Your task to perform on an android device: What is the news today? Image 0: 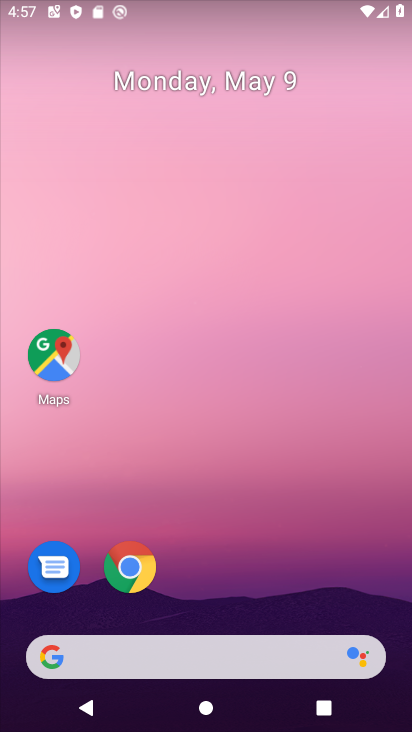
Step 0: drag from (258, 498) to (233, 121)
Your task to perform on an android device: What is the news today? Image 1: 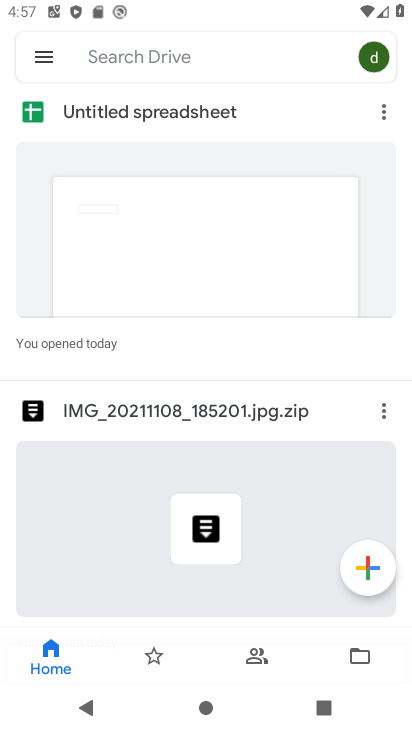
Step 1: press home button
Your task to perform on an android device: What is the news today? Image 2: 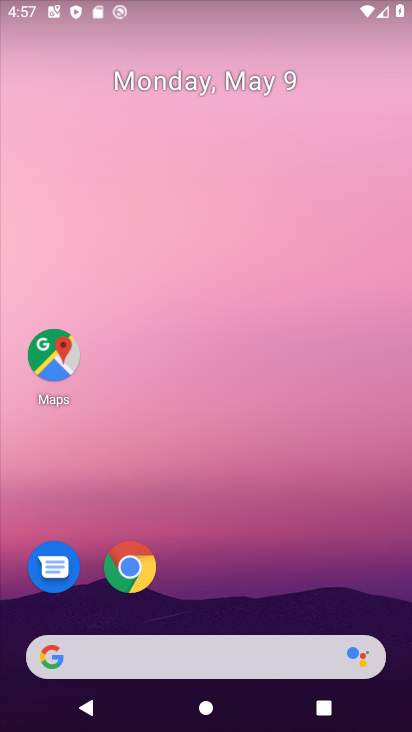
Step 2: drag from (279, 581) to (214, 99)
Your task to perform on an android device: What is the news today? Image 3: 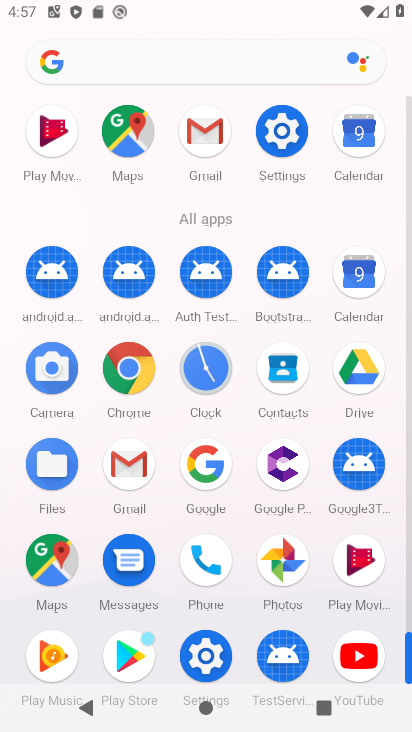
Step 3: click (210, 481)
Your task to perform on an android device: What is the news today? Image 4: 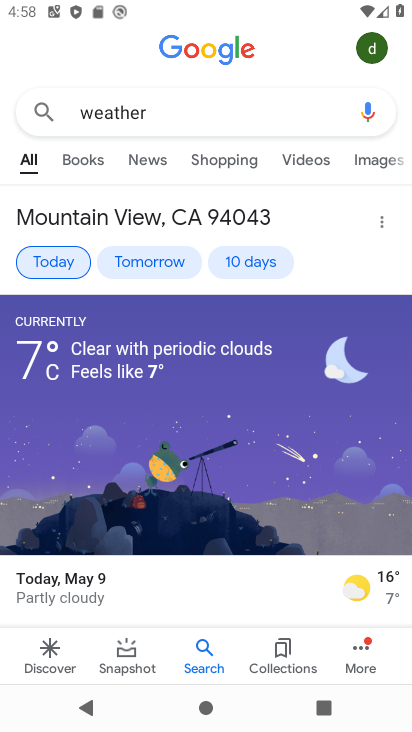
Step 4: click (193, 114)
Your task to perform on an android device: What is the news today? Image 5: 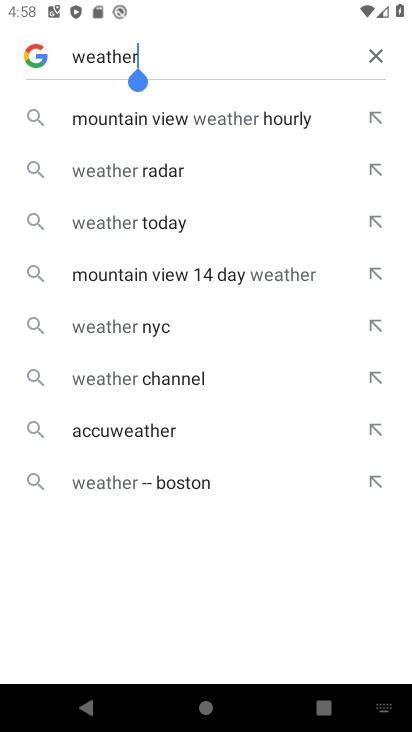
Step 5: click (379, 55)
Your task to perform on an android device: What is the news today? Image 6: 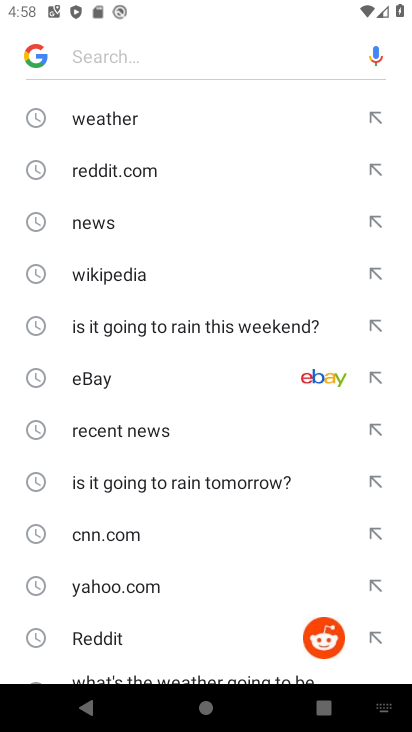
Step 6: drag from (165, 542) to (180, 220)
Your task to perform on an android device: What is the news today? Image 7: 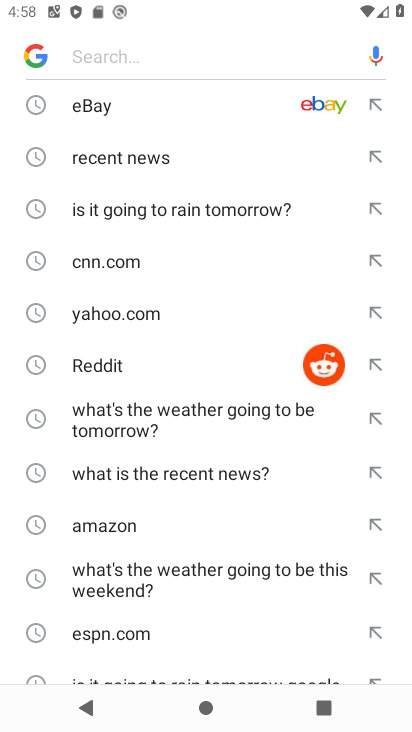
Step 7: drag from (186, 266) to (209, 617)
Your task to perform on an android device: What is the news today? Image 8: 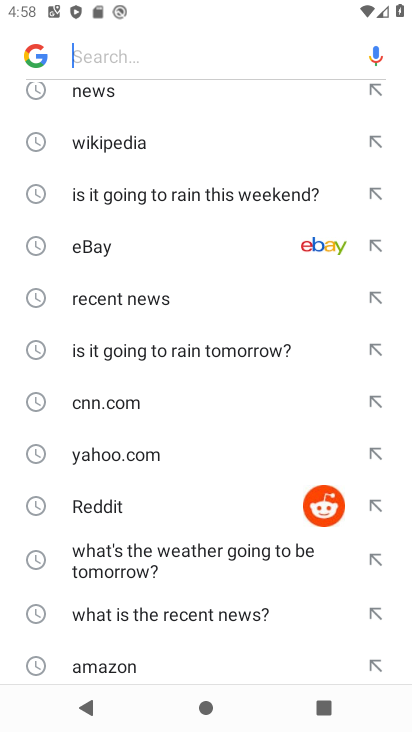
Step 8: drag from (196, 277) to (173, 512)
Your task to perform on an android device: What is the news today? Image 9: 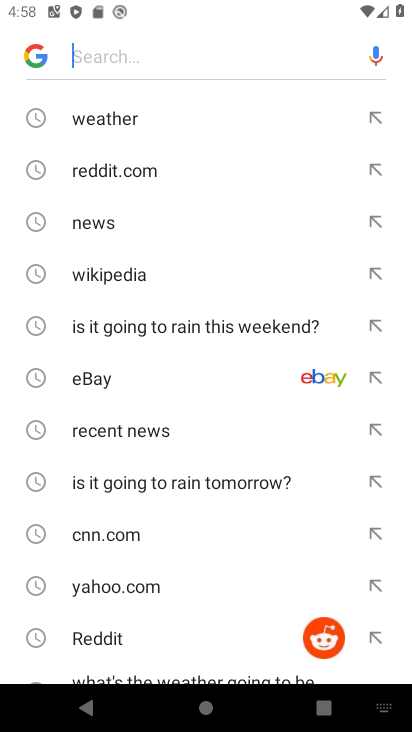
Step 9: type "news today"
Your task to perform on an android device: What is the news today? Image 10: 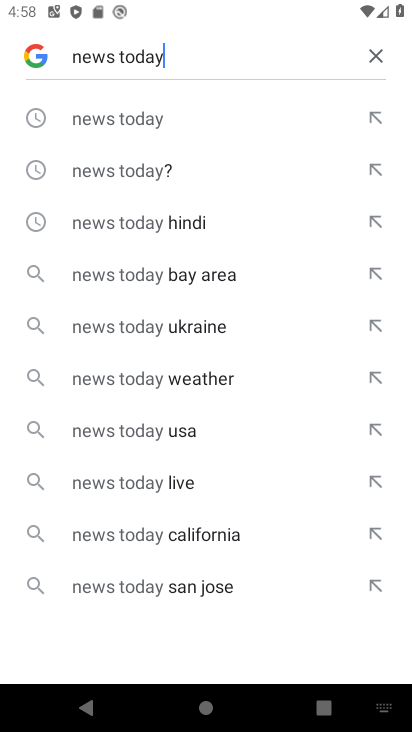
Step 10: click (120, 122)
Your task to perform on an android device: What is the news today? Image 11: 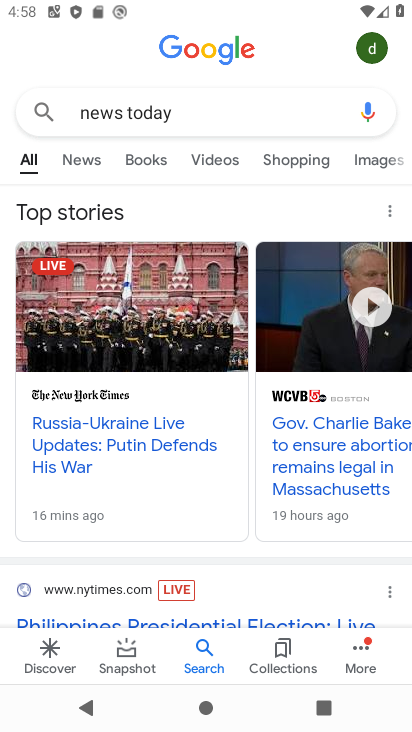
Step 11: task complete